Your task to perform on an android device: Set an alarm for 1pm Image 0: 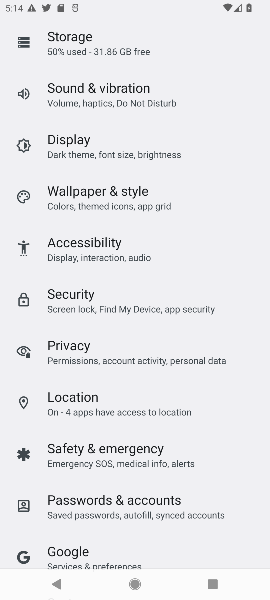
Step 0: click (133, 585)
Your task to perform on an android device: Set an alarm for 1pm Image 1: 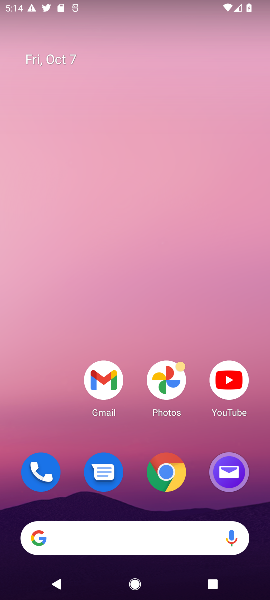
Step 1: drag from (69, 450) to (75, 49)
Your task to perform on an android device: Set an alarm for 1pm Image 2: 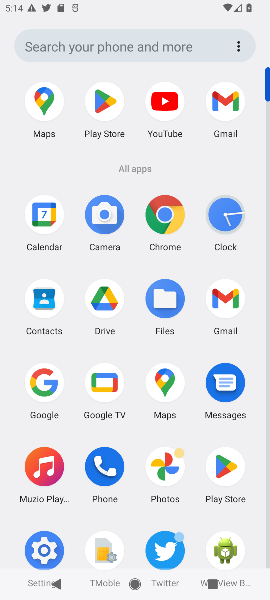
Step 2: click (240, 209)
Your task to perform on an android device: Set an alarm for 1pm Image 3: 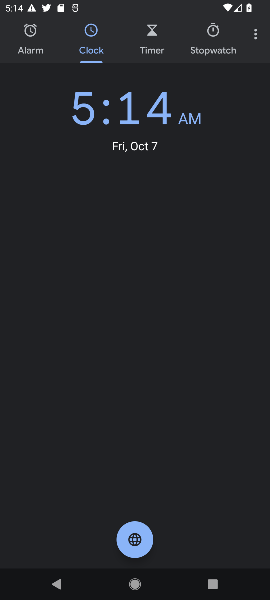
Step 3: click (39, 44)
Your task to perform on an android device: Set an alarm for 1pm Image 4: 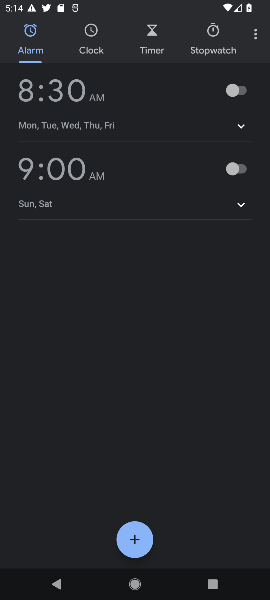
Step 4: click (138, 546)
Your task to perform on an android device: Set an alarm for 1pm Image 5: 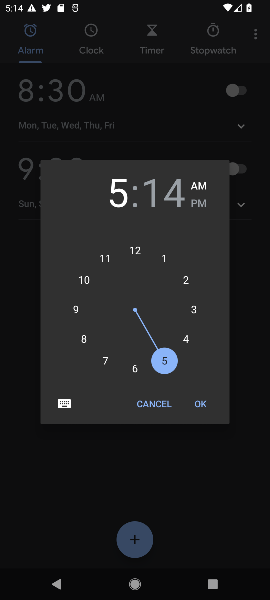
Step 5: click (197, 211)
Your task to perform on an android device: Set an alarm for 1pm Image 6: 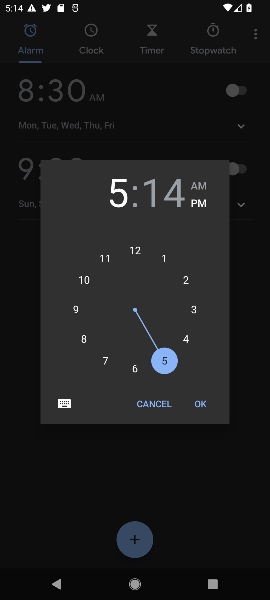
Step 6: click (198, 207)
Your task to perform on an android device: Set an alarm for 1pm Image 7: 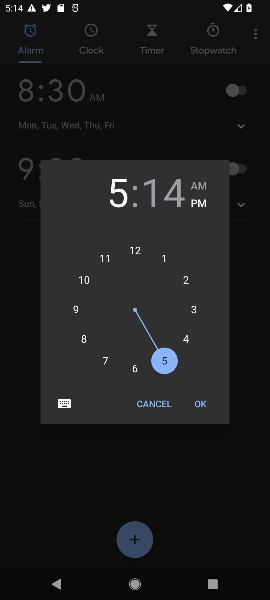
Step 7: drag from (170, 314) to (163, 262)
Your task to perform on an android device: Set an alarm for 1pm Image 8: 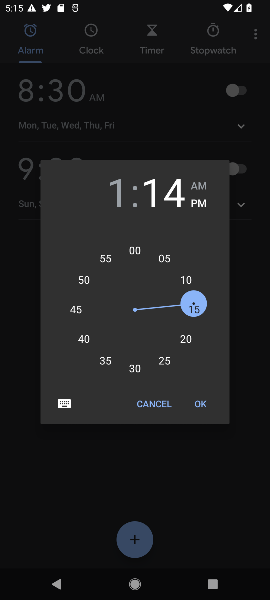
Step 8: click (134, 252)
Your task to perform on an android device: Set an alarm for 1pm Image 9: 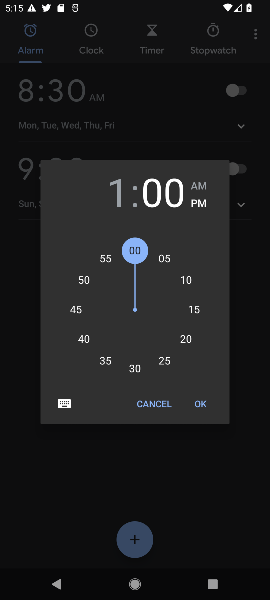
Step 9: click (199, 405)
Your task to perform on an android device: Set an alarm for 1pm Image 10: 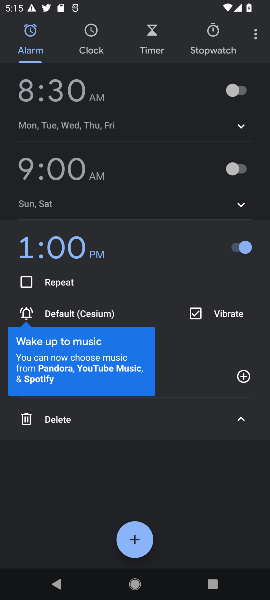
Step 10: task complete